Your task to perform on an android device: Open Google Chrome Image 0: 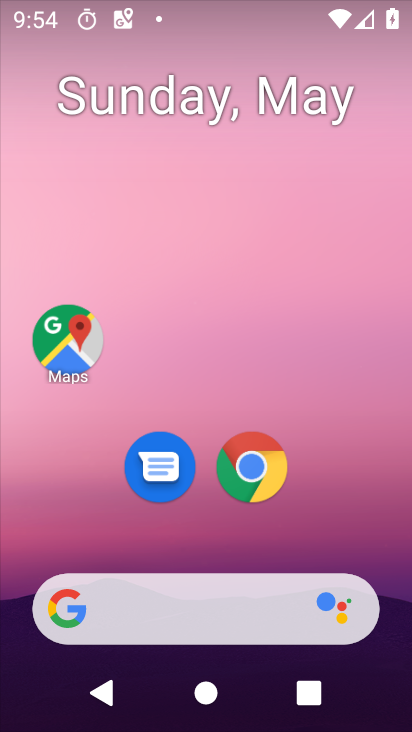
Step 0: click (246, 462)
Your task to perform on an android device: Open Google Chrome Image 1: 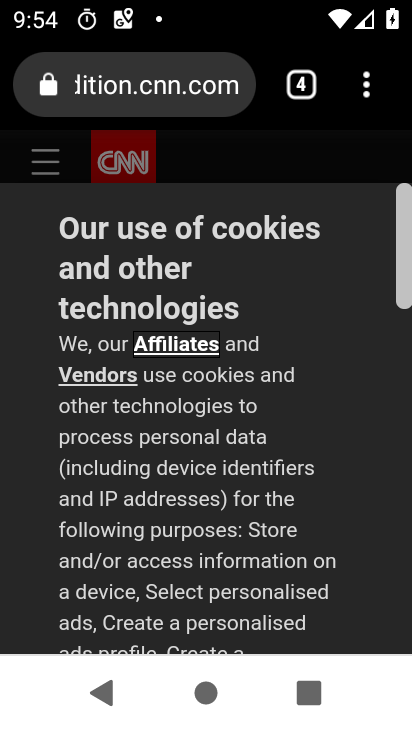
Step 1: task complete